Your task to perform on an android device: Open Yahoo.com Image 0: 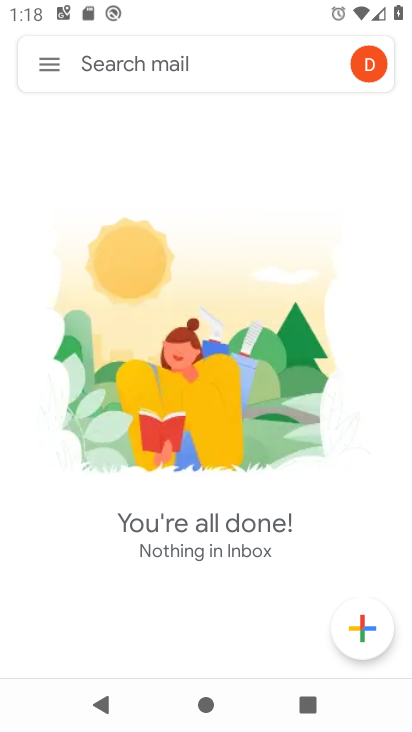
Step 0: click (181, 73)
Your task to perform on an android device: Open Yahoo.com Image 1: 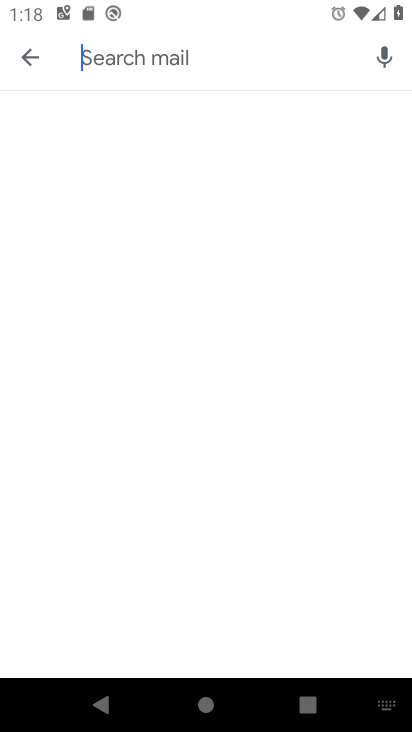
Step 1: type "yahoo"
Your task to perform on an android device: Open Yahoo.com Image 2: 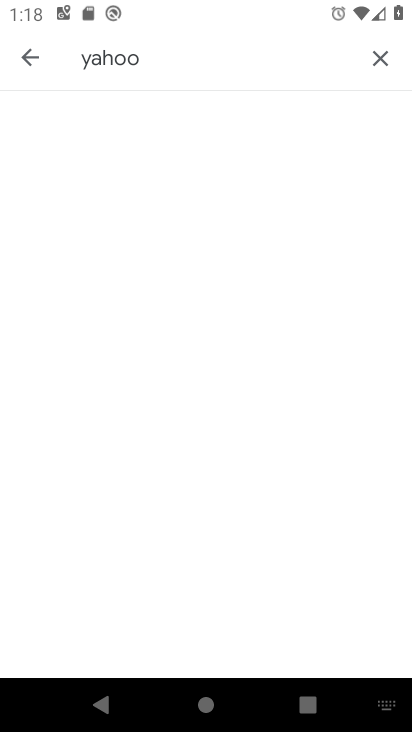
Step 2: task complete